Your task to perform on an android device: turn off wifi Image 0: 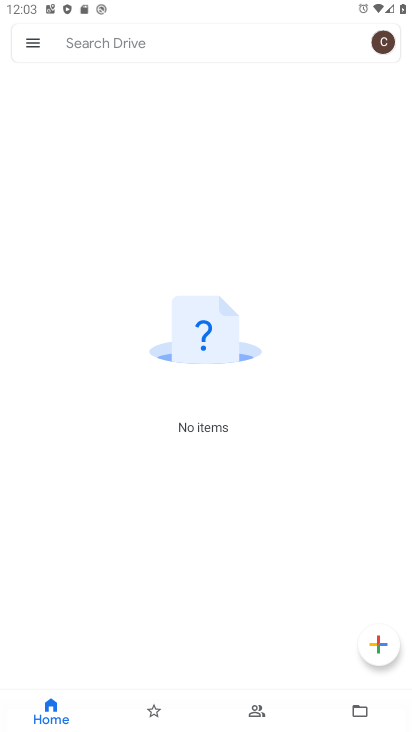
Step 0: press home button
Your task to perform on an android device: turn off wifi Image 1: 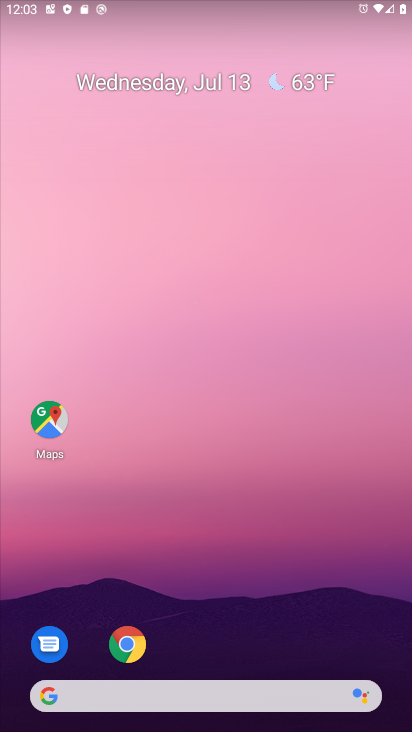
Step 1: drag from (169, 691) to (208, 223)
Your task to perform on an android device: turn off wifi Image 2: 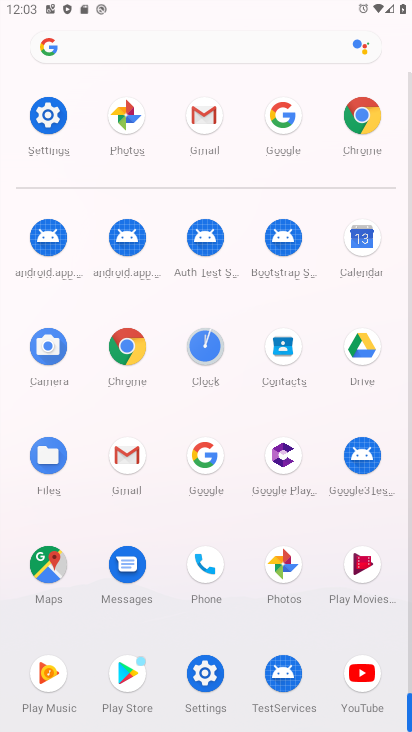
Step 2: click (51, 114)
Your task to perform on an android device: turn off wifi Image 3: 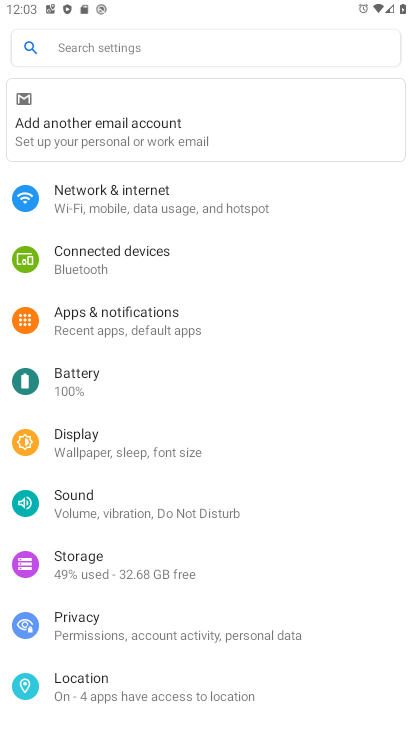
Step 3: click (95, 203)
Your task to perform on an android device: turn off wifi Image 4: 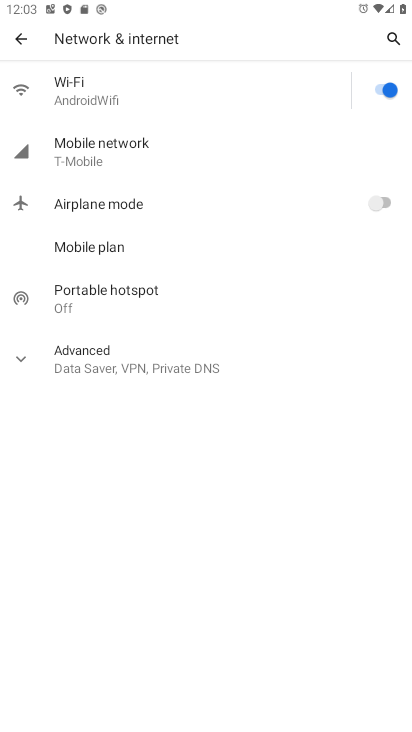
Step 4: click (388, 84)
Your task to perform on an android device: turn off wifi Image 5: 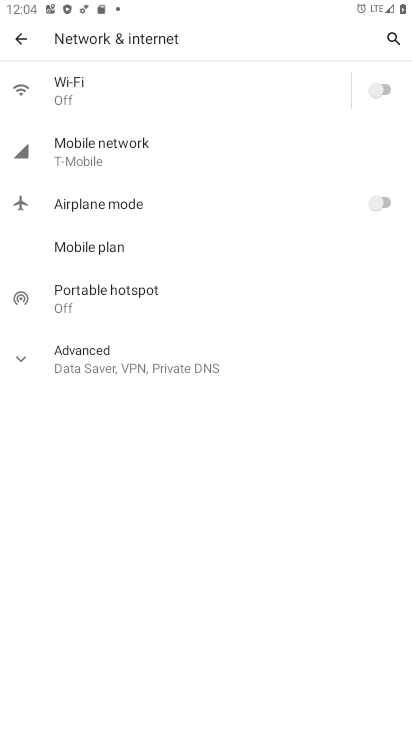
Step 5: task complete